Your task to perform on an android device: Open the map Image 0: 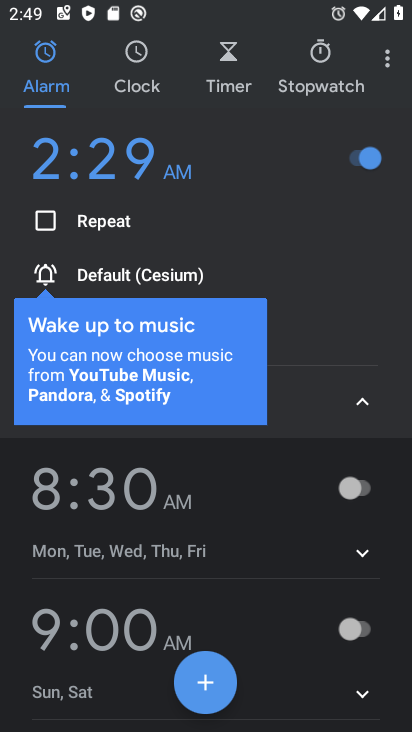
Step 0: press back button
Your task to perform on an android device: Open the map Image 1: 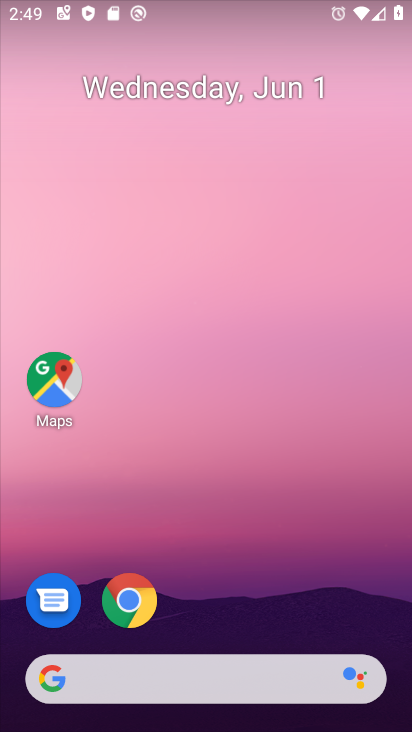
Step 1: drag from (215, 603) to (194, 1)
Your task to perform on an android device: Open the map Image 2: 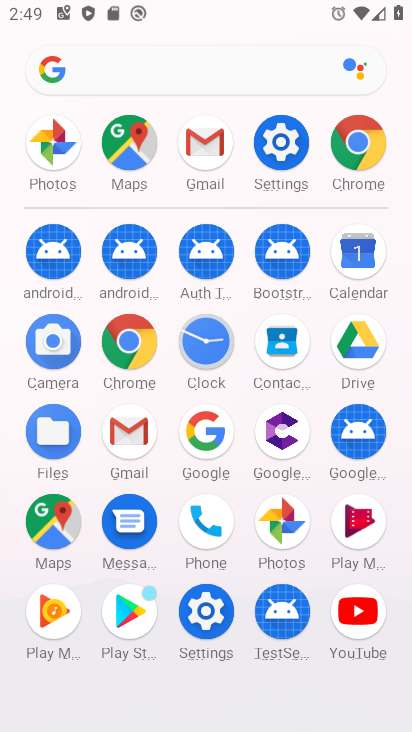
Step 2: click (49, 520)
Your task to perform on an android device: Open the map Image 3: 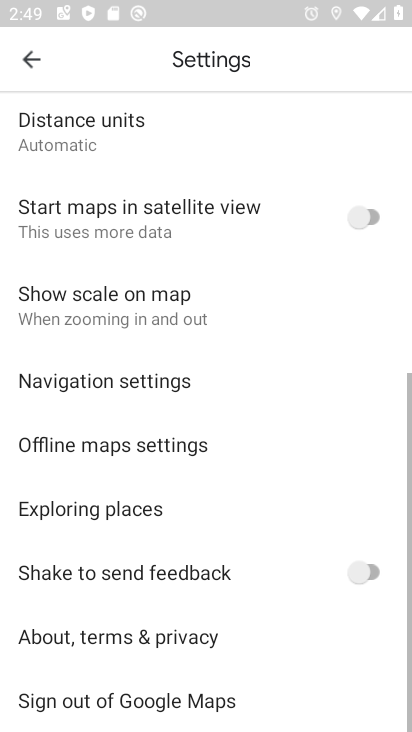
Step 3: click (39, 60)
Your task to perform on an android device: Open the map Image 4: 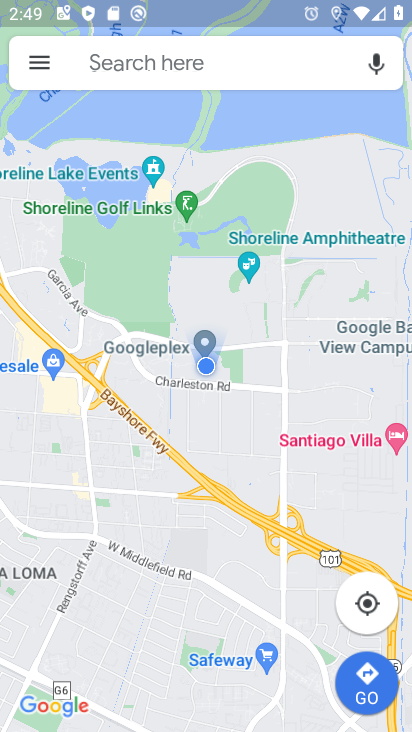
Step 4: task complete